Your task to perform on an android device: Search for Italian restaurants on Maps Image 0: 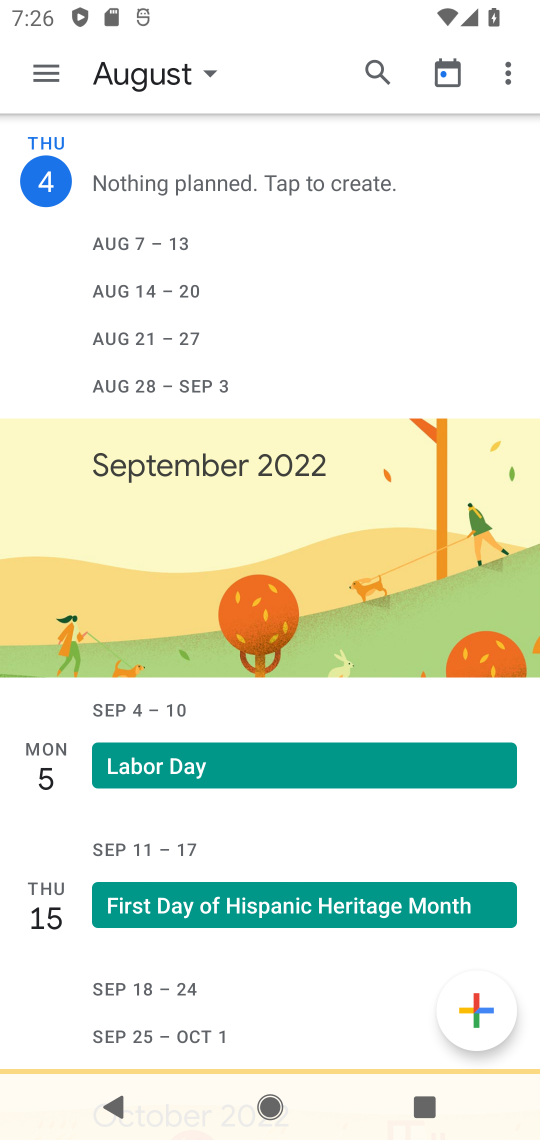
Step 0: press home button
Your task to perform on an android device: Search for Italian restaurants on Maps Image 1: 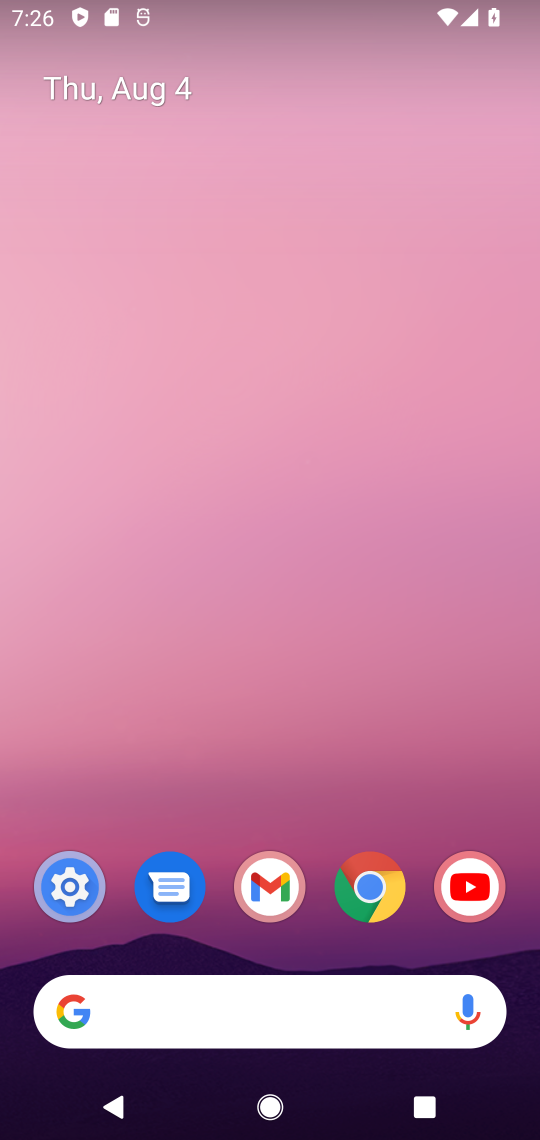
Step 1: drag from (248, 932) to (248, 232)
Your task to perform on an android device: Search for Italian restaurants on Maps Image 2: 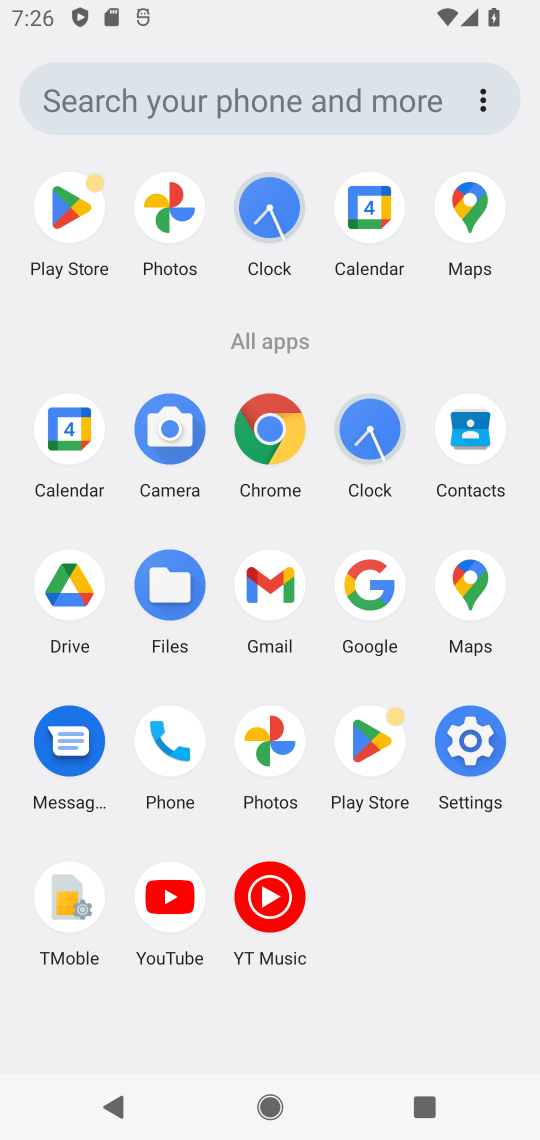
Step 2: click (459, 206)
Your task to perform on an android device: Search for Italian restaurants on Maps Image 3: 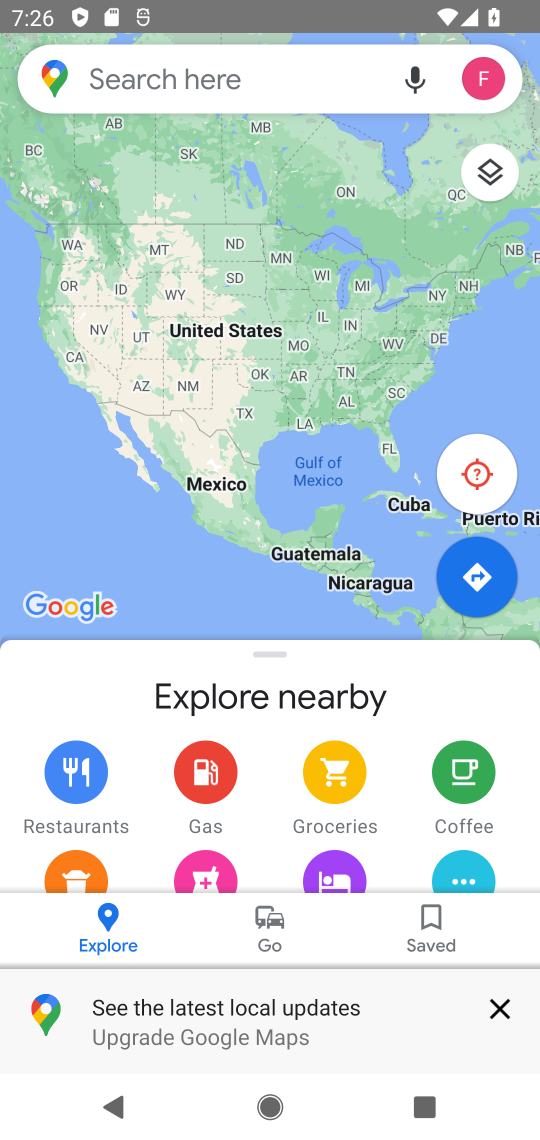
Step 3: click (273, 66)
Your task to perform on an android device: Search for Italian restaurants on Maps Image 4: 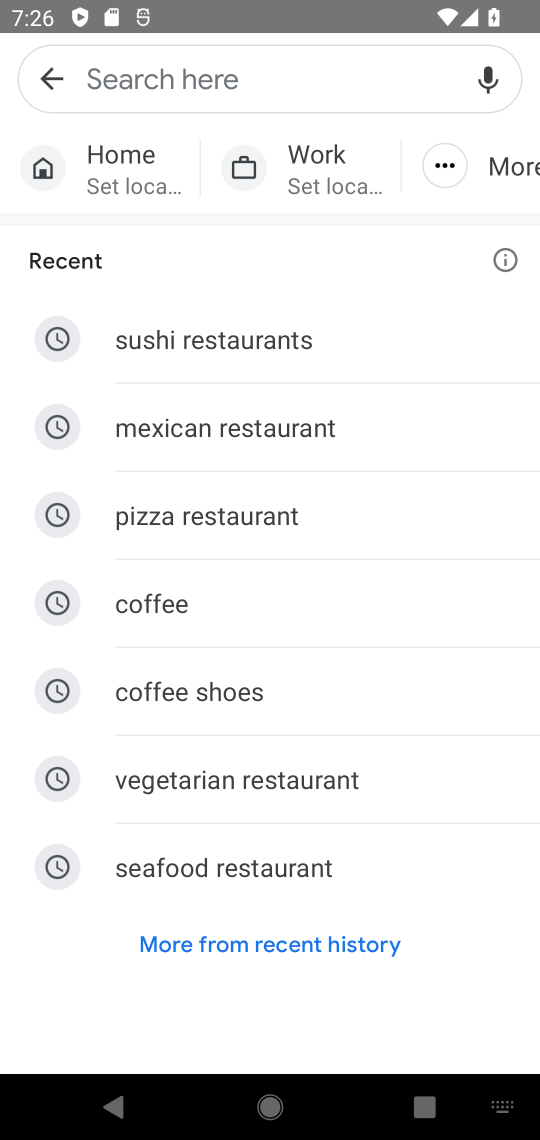
Step 4: click (208, 944)
Your task to perform on an android device: Search for Italian restaurants on Maps Image 5: 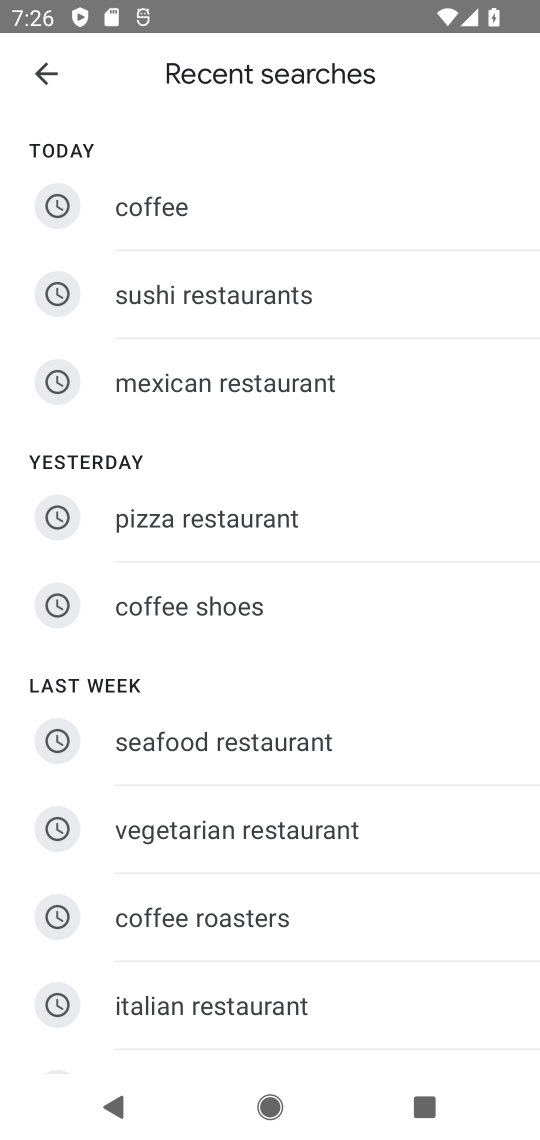
Step 5: click (170, 1013)
Your task to perform on an android device: Search for Italian restaurants on Maps Image 6: 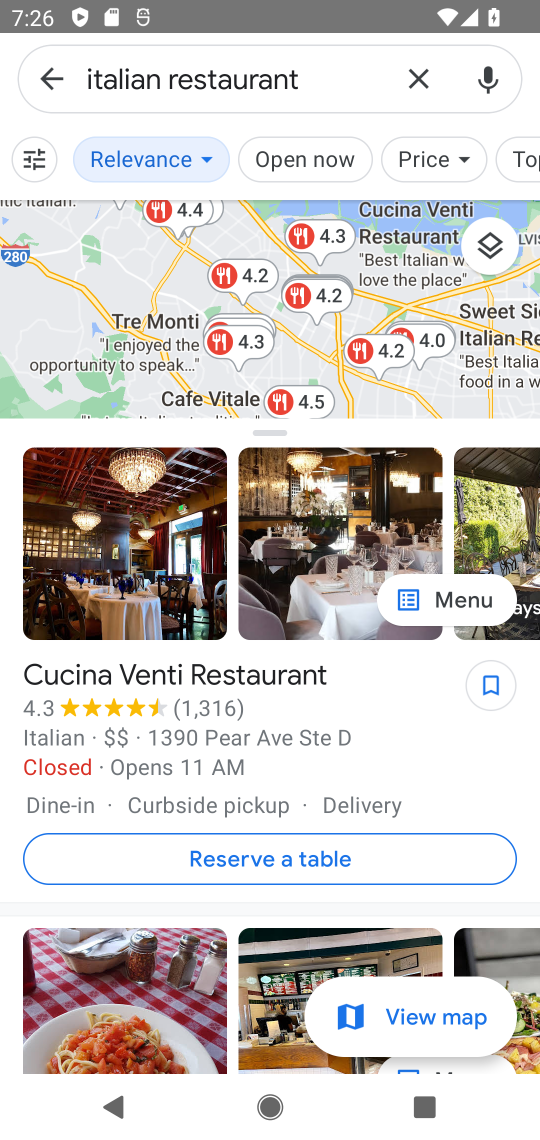
Step 6: task complete